Your task to perform on an android device: set an alarm Image 0: 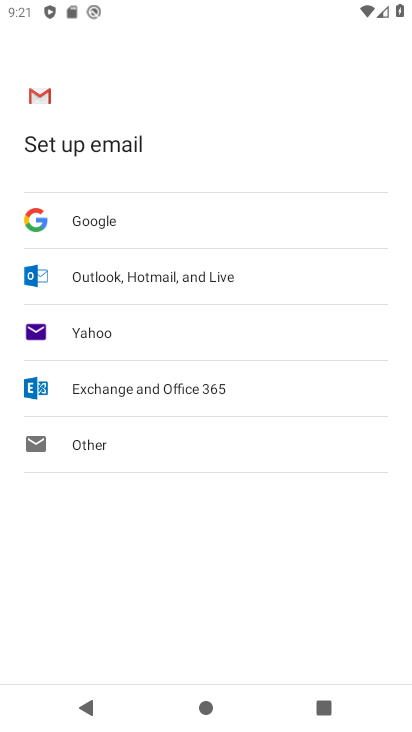
Step 0: press home button
Your task to perform on an android device: set an alarm Image 1: 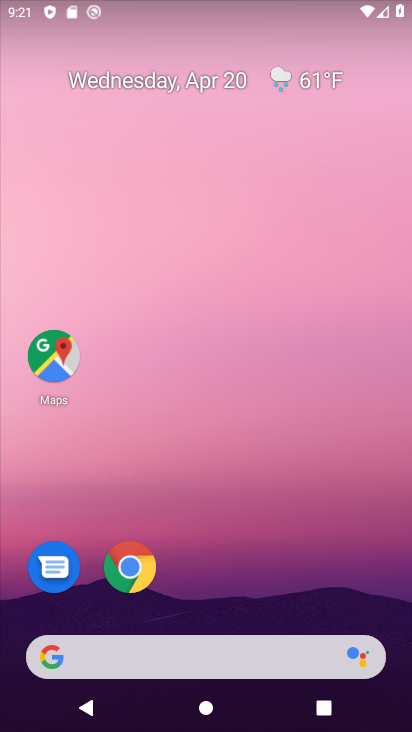
Step 1: drag from (220, 597) to (201, 172)
Your task to perform on an android device: set an alarm Image 2: 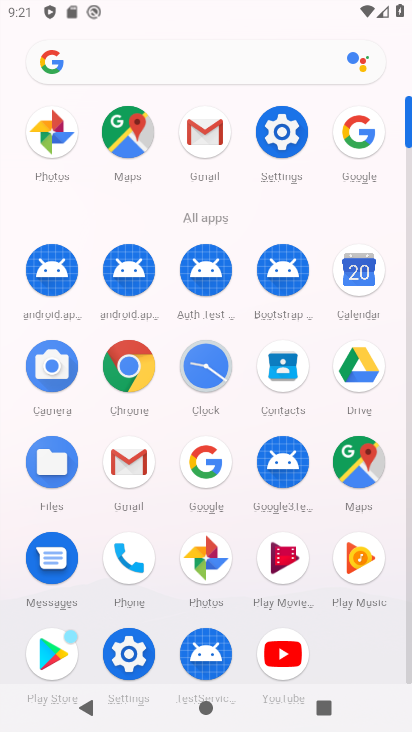
Step 2: click (223, 353)
Your task to perform on an android device: set an alarm Image 3: 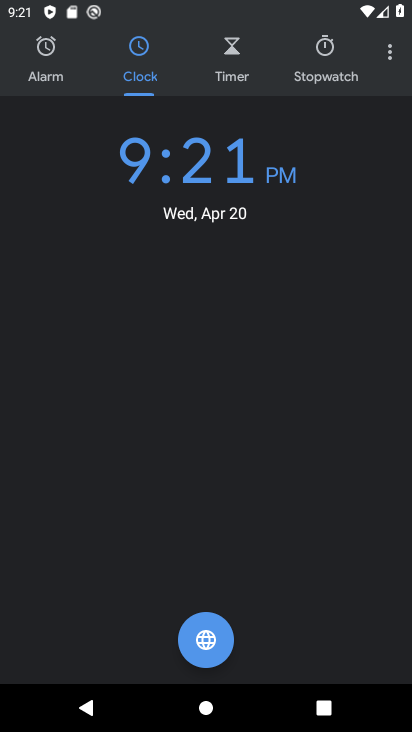
Step 3: click (50, 42)
Your task to perform on an android device: set an alarm Image 4: 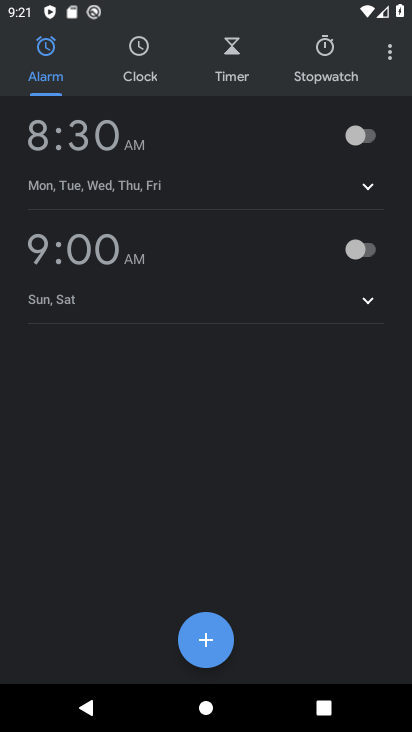
Step 4: click (364, 143)
Your task to perform on an android device: set an alarm Image 5: 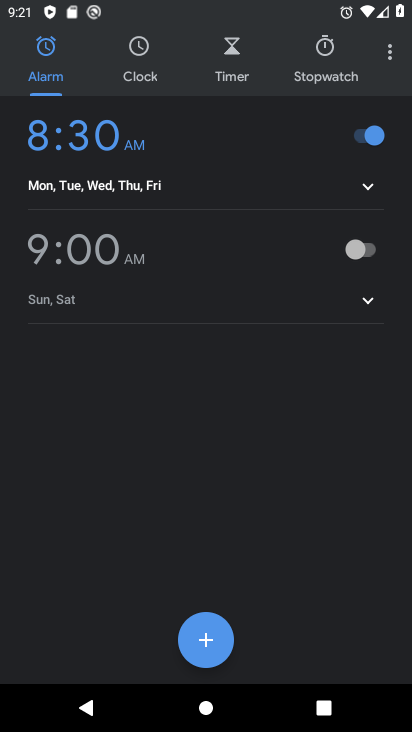
Step 5: task complete